Your task to perform on an android device: Open location settings Image 0: 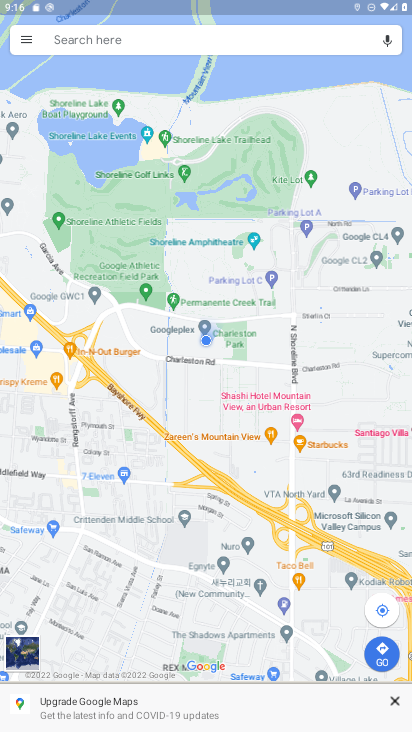
Step 0: press home button
Your task to perform on an android device: Open location settings Image 1: 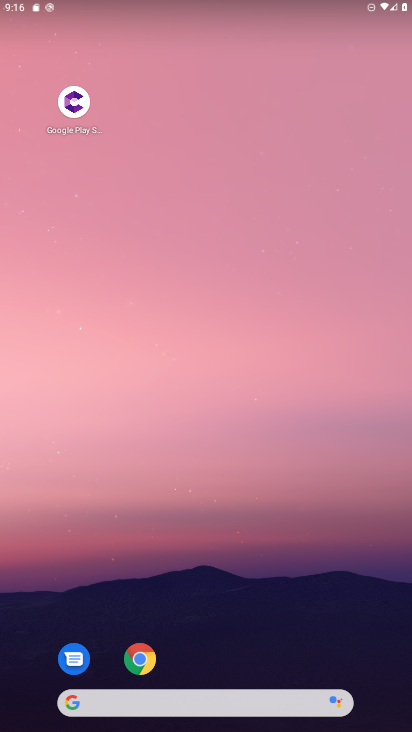
Step 1: drag from (315, 575) to (408, 65)
Your task to perform on an android device: Open location settings Image 2: 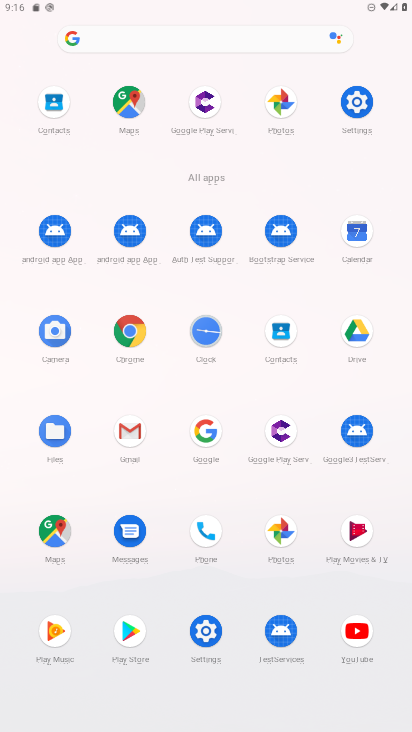
Step 2: click (367, 115)
Your task to perform on an android device: Open location settings Image 3: 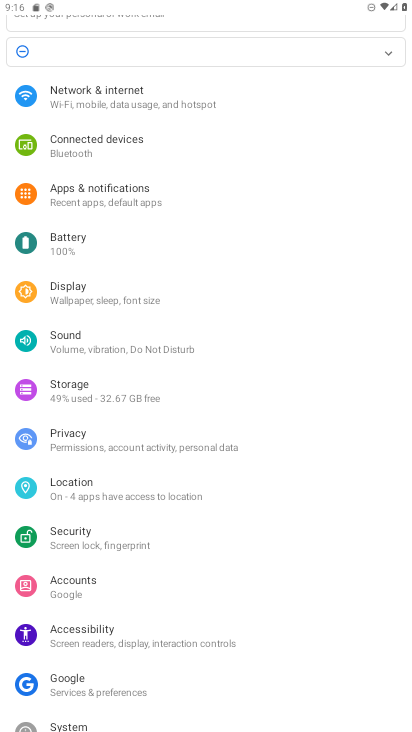
Step 3: click (178, 484)
Your task to perform on an android device: Open location settings Image 4: 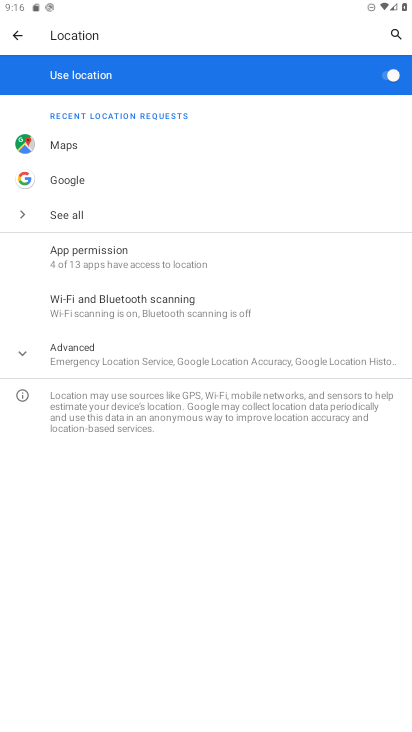
Step 4: task complete